Your task to perform on an android device: toggle data saver in the chrome app Image 0: 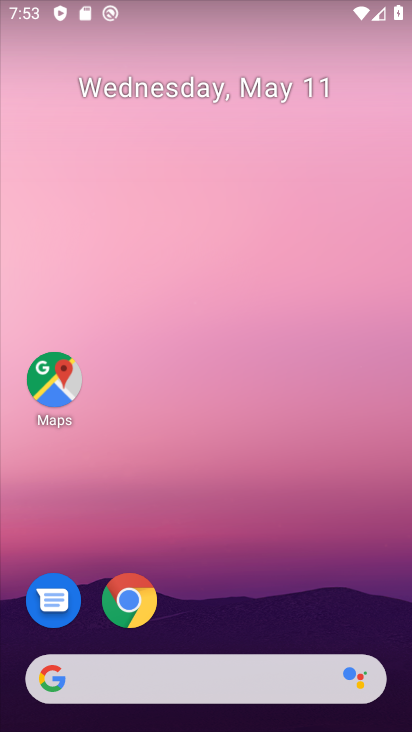
Step 0: click (127, 592)
Your task to perform on an android device: toggle data saver in the chrome app Image 1: 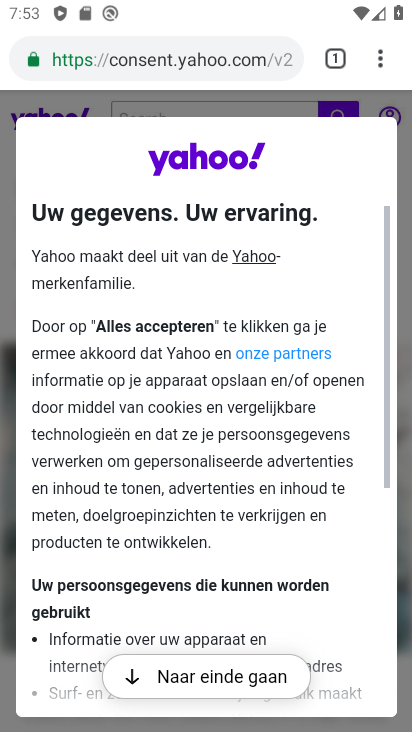
Step 1: click (374, 48)
Your task to perform on an android device: toggle data saver in the chrome app Image 2: 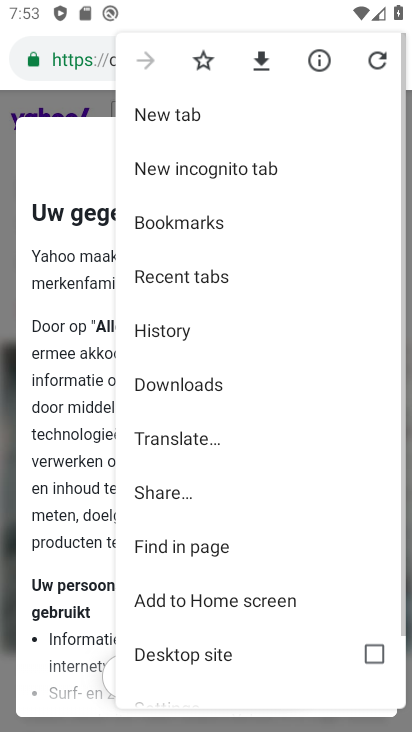
Step 2: drag from (226, 539) to (251, 218)
Your task to perform on an android device: toggle data saver in the chrome app Image 3: 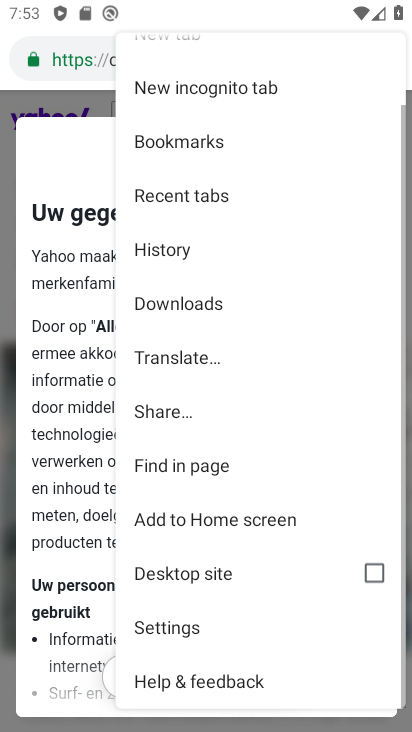
Step 3: click (182, 624)
Your task to perform on an android device: toggle data saver in the chrome app Image 4: 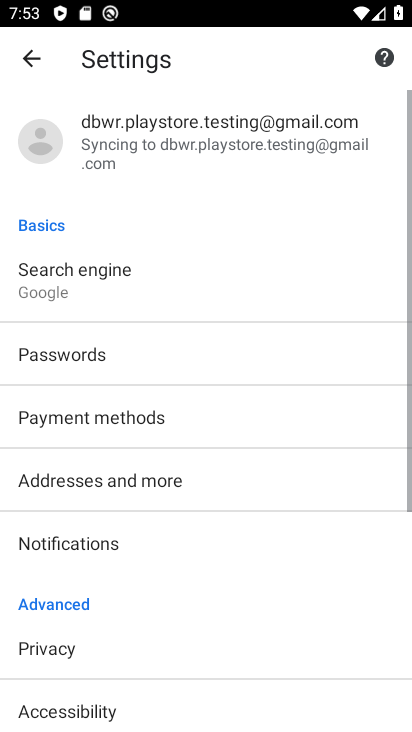
Step 4: drag from (185, 624) to (251, 185)
Your task to perform on an android device: toggle data saver in the chrome app Image 5: 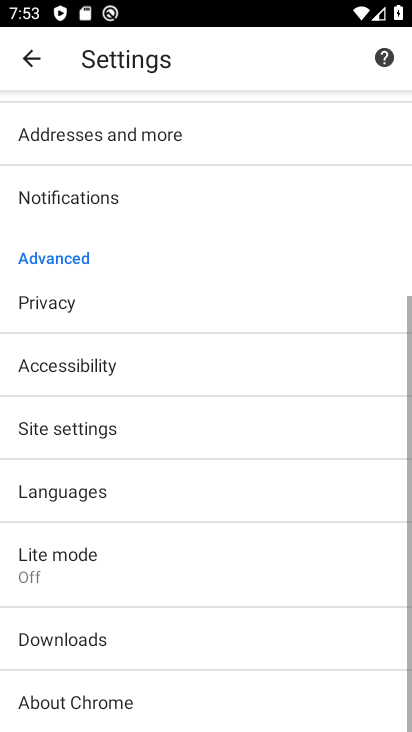
Step 5: click (152, 576)
Your task to perform on an android device: toggle data saver in the chrome app Image 6: 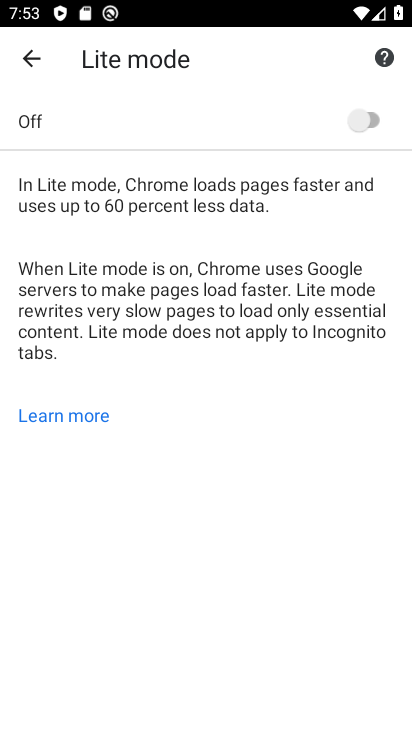
Step 6: click (365, 123)
Your task to perform on an android device: toggle data saver in the chrome app Image 7: 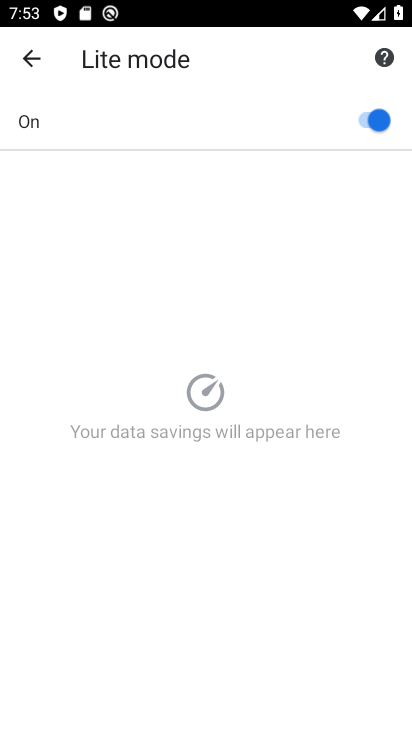
Step 7: task complete